Your task to perform on an android device: turn on sleep mode Image 0: 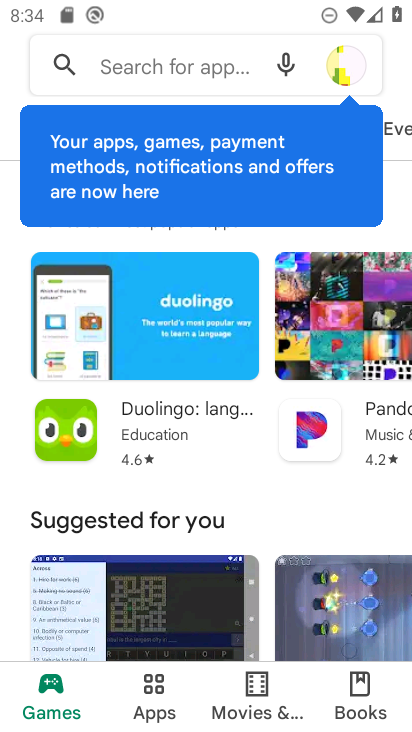
Step 0: press home button
Your task to perform on an android device: turn on sleep mode Image 1: 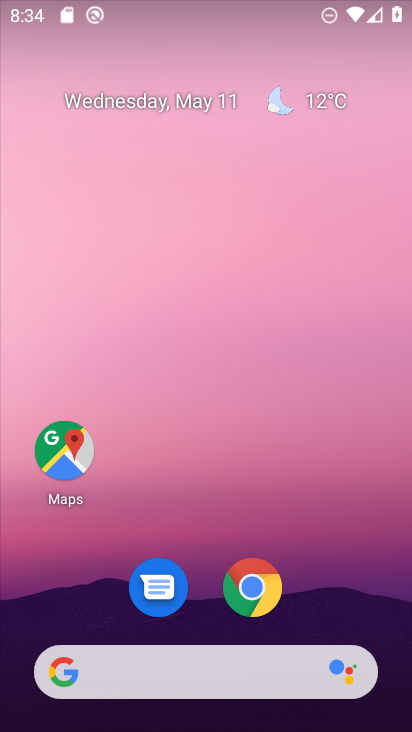
Step 1: drag from (336, 554) to (300, 144)
Your task to perform on an android device: turn on sleep mode Image 2: 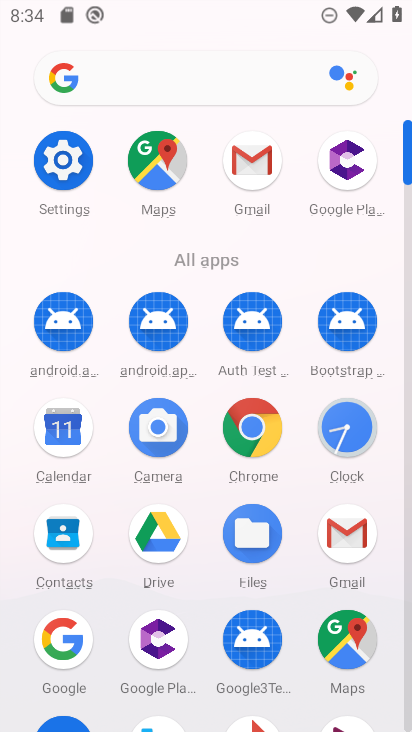
Step 2: click (49, 183)
Your task to perform on an android device: turn on sleep mode Image 3: 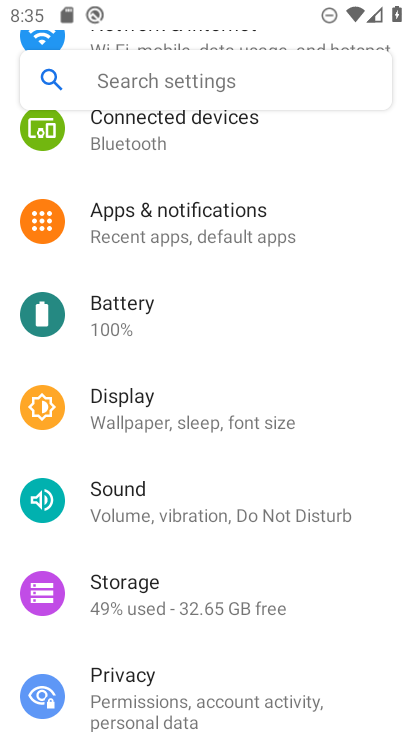
Step 3: drag from (253, 610) to (194, 343)
Your task to perform on an android device: turn on sleep mode Image 4: 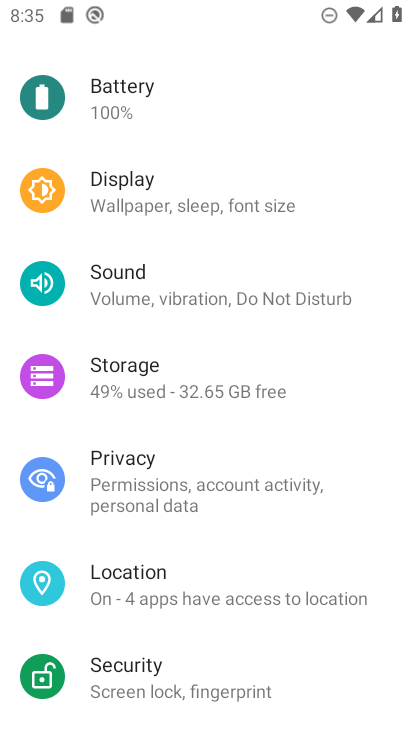
Step 4: drag from (244, 555) to (172, 291)
Your task to perform on an android device: turn on sleep mode Image 5: 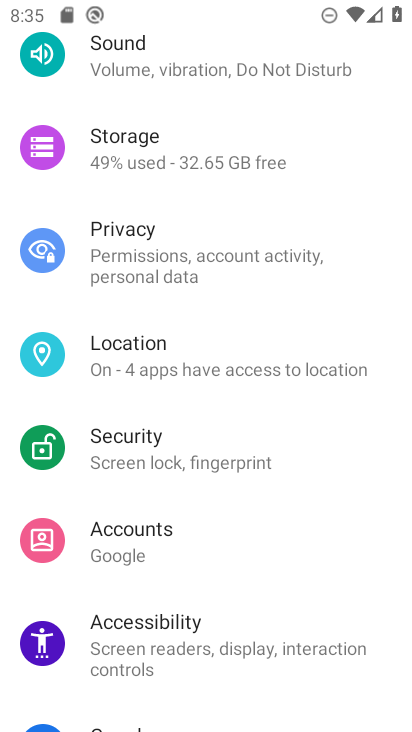
Step 5: drag from (266, 663) to (221, 468)
Your task to perform on an android device: turn on sleep mode Image 6: 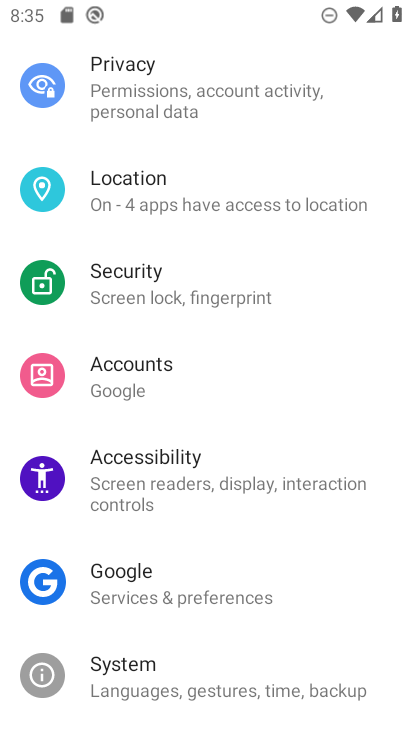
Step 6: drag from (229, 192) to (388, 661)
Your task to perform on an android device: turn on sleep mode Image 7: 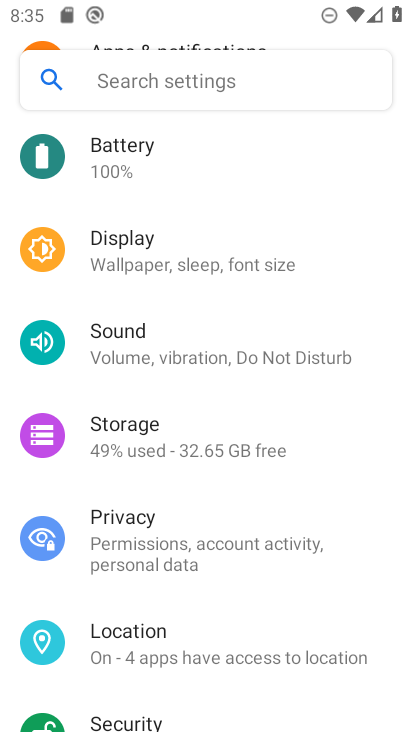
Step 7: drag from (215, 214) to (208, 45)
Your task to perform on an android device: turn on sleep mode Image 8: 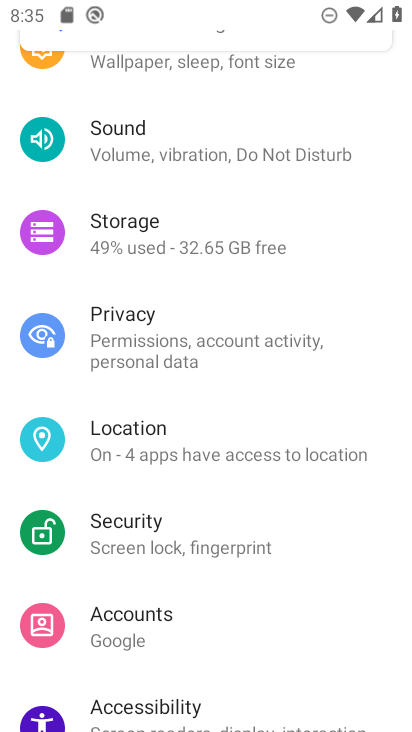
Step 8: drag from (148, 96) to (187, 312)
Your task to perform on an android device: turn on sleep mode Image 9: 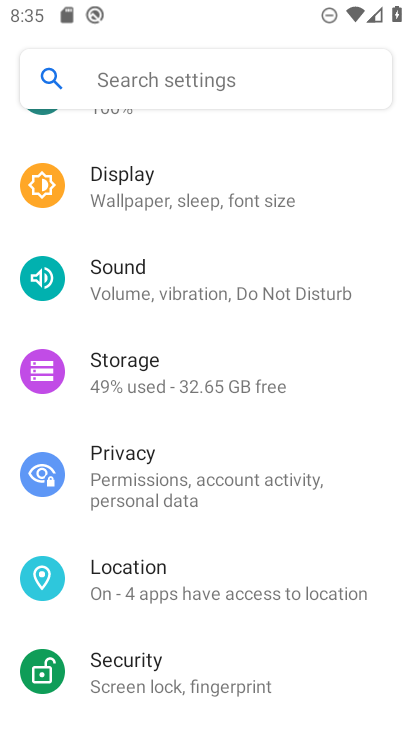
Step 9: click (149, 205)
Your task to perform on an android device: turn on sleep mode Image 10: 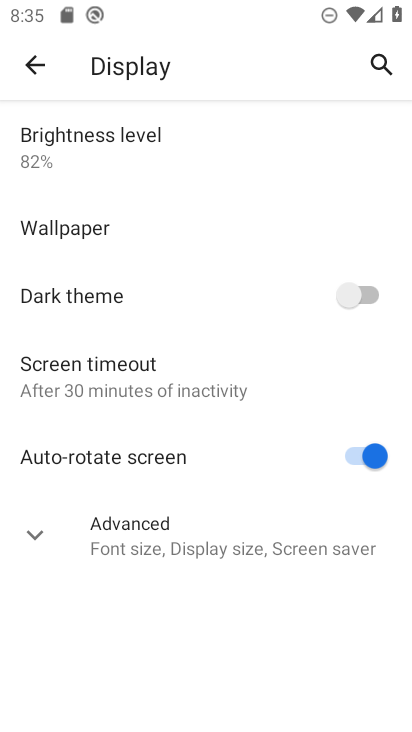
Step 10: click (211, 541)
Your task to perform on an android device: turn on sleep mode Image 11: 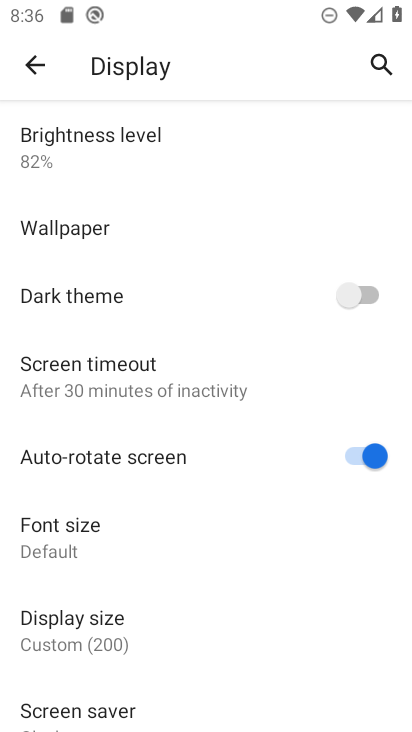
Step 11: task complete